Your task to perform on an android device: Go to location settings Image 0: 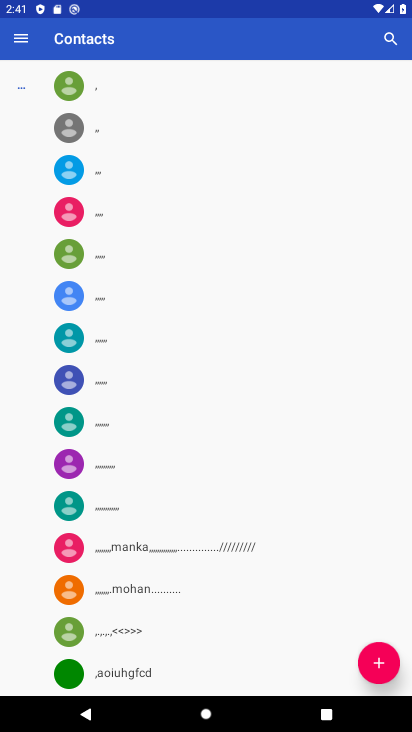
Step 0: press home button
Your task to perform on an android device: Go to location settings Image 1: 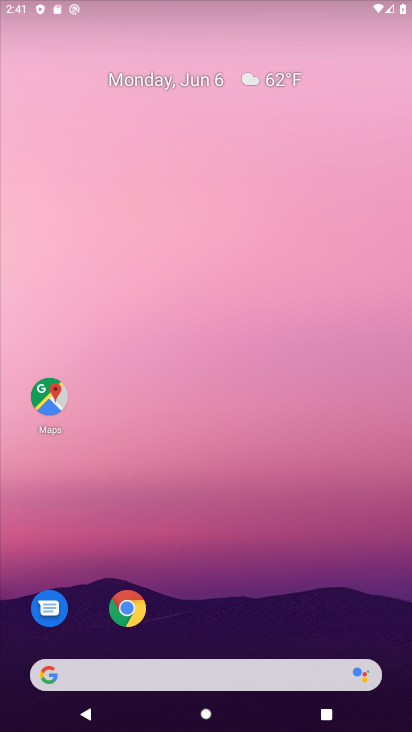
Step 1: drag from (234, 467) to (213, 2)
Your task to perform on an android device: Go to location settings Image 2: 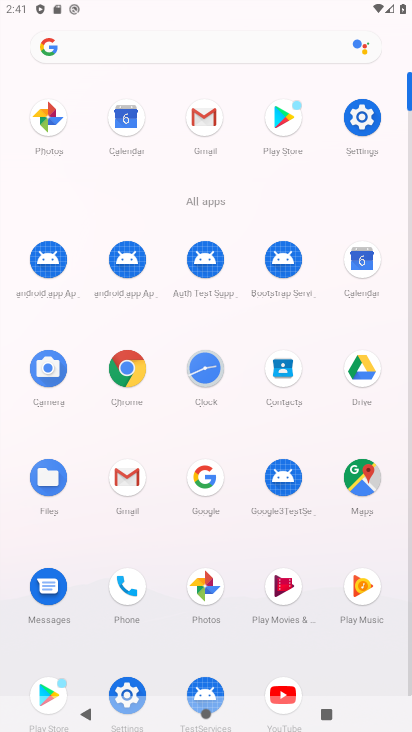
Step 2: click (357, 118)
Your task to perform on an android device: Go to location settings Image 3: 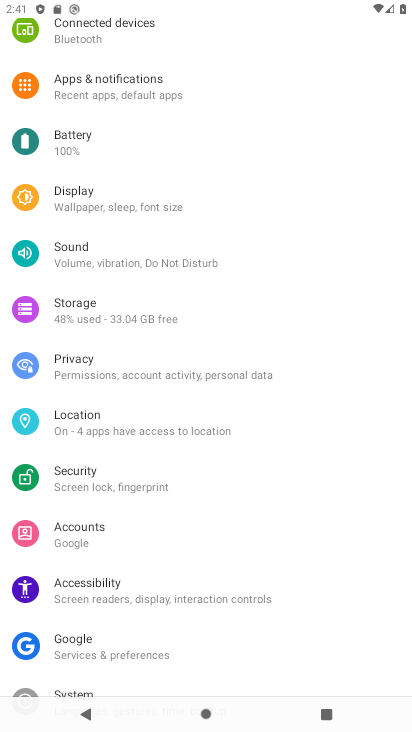
Step 3: click (110, 420)
Your task to perform on an android device: Go to location settings Image 4: 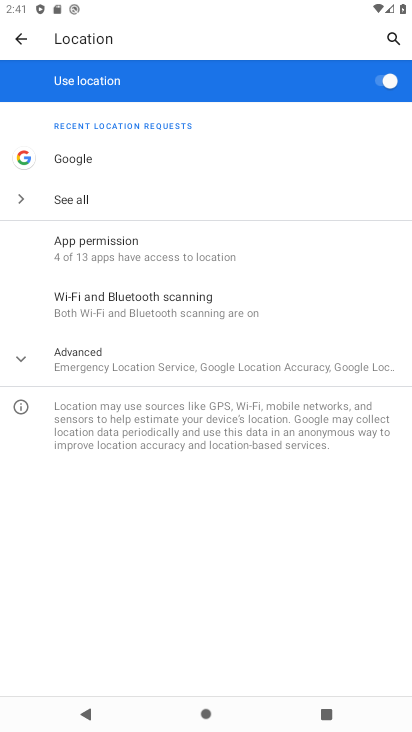
Step 4: task complete